Your task to perform on an android device: Open Youtube and go to "Your channel" Image 0: 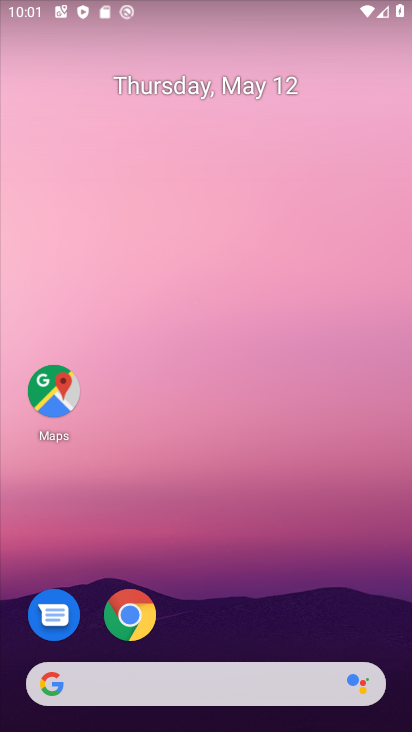
Step 0: drag from (212, 702) to (188, 68)
Your task to perform on an android device: Open Youtube and go to "Your channel" Image 1: 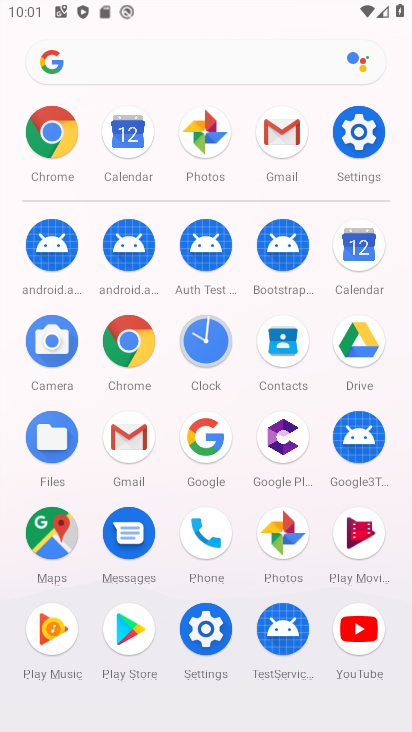
Step 1: click (357, 620)
Your task to perform on an android device: Open Youtube and go to "Your channel" Image 2: 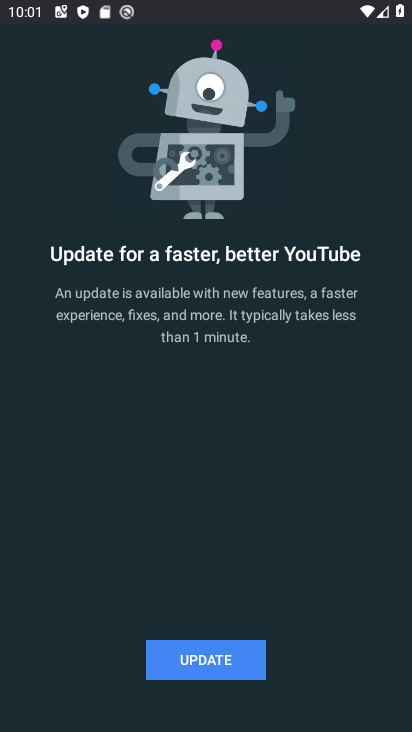
Step 2: task complete